Your task to perform on an android device: turn off notifications in google photos Image 0: 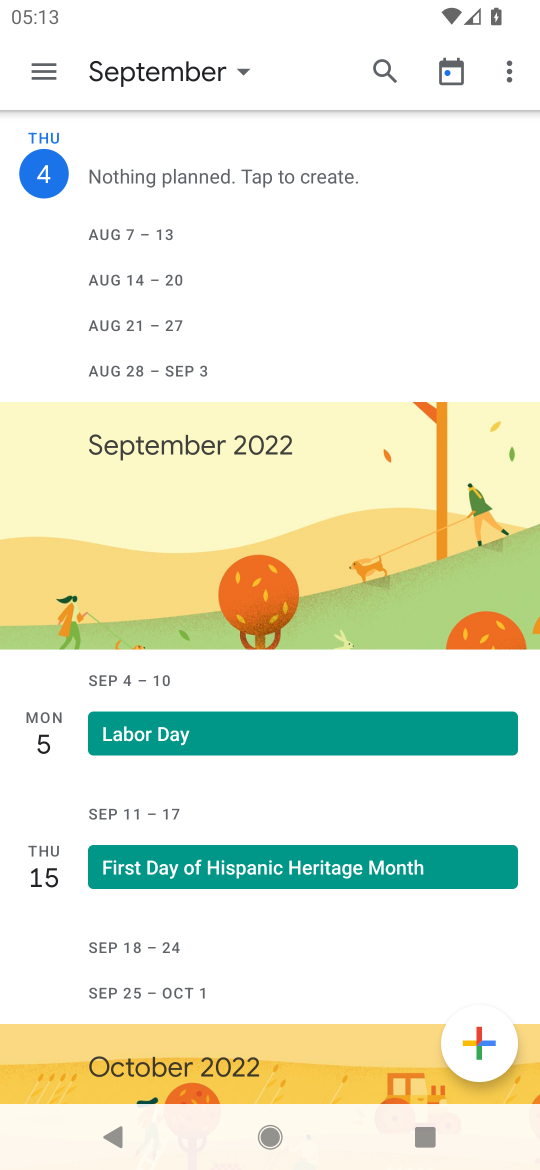
Step 0: press home button
Your task to perform on an android device: turn off notifications in google photos Image 1: 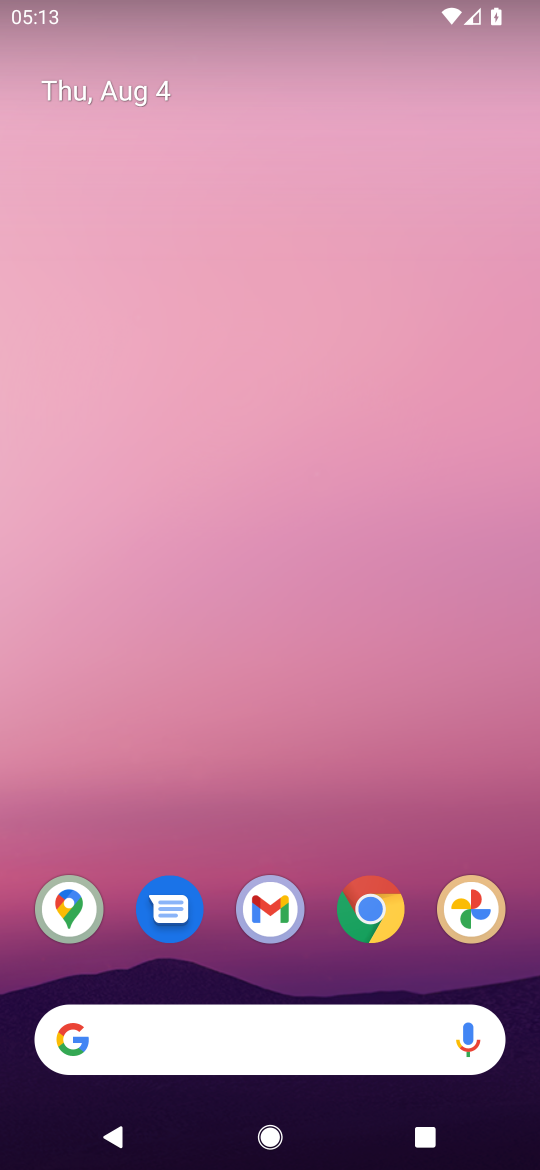
Step 1: drag from (284, 817) to (216, 49)
Your task to perform on an android device: turn off notifications in google photos Image 2: 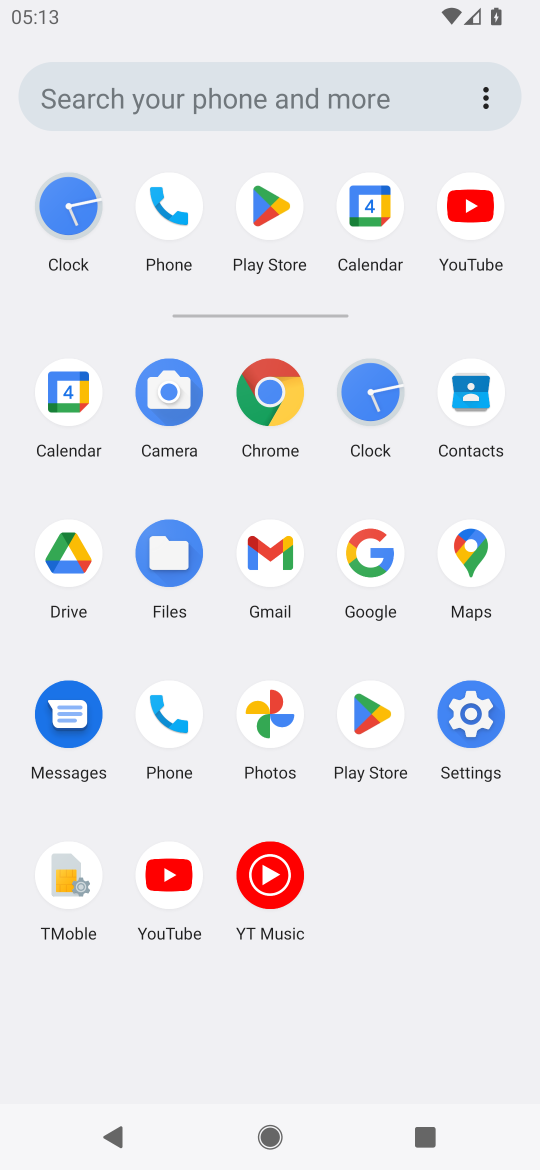
Step 2: click (270, 717)
Your task to perform on an android device: turn off notifications in google photos Image 3: 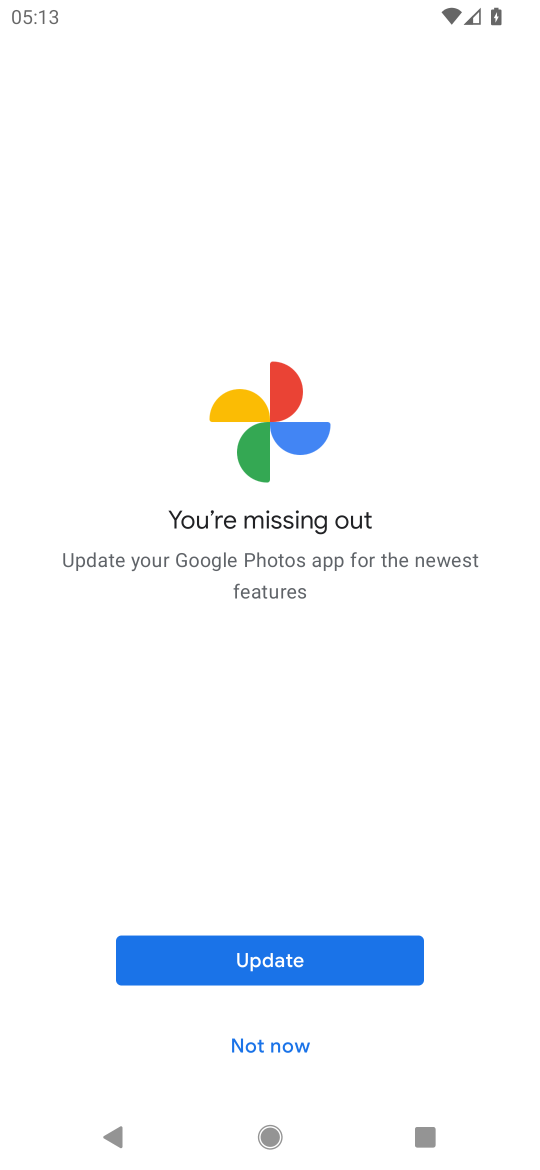
Step 3: click (271, 957)
Your task to perform on an android device: turn off notifications in google photos Image 4: 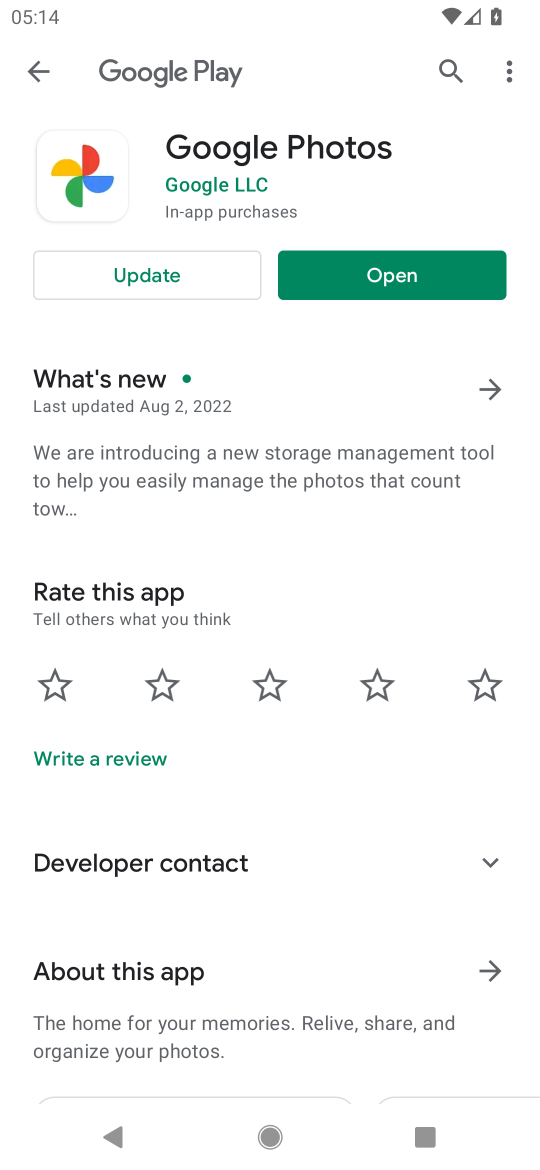
Step 4: click (130, 289)
Your task to perform on an android device: turn off notifications in google photos Image 5: 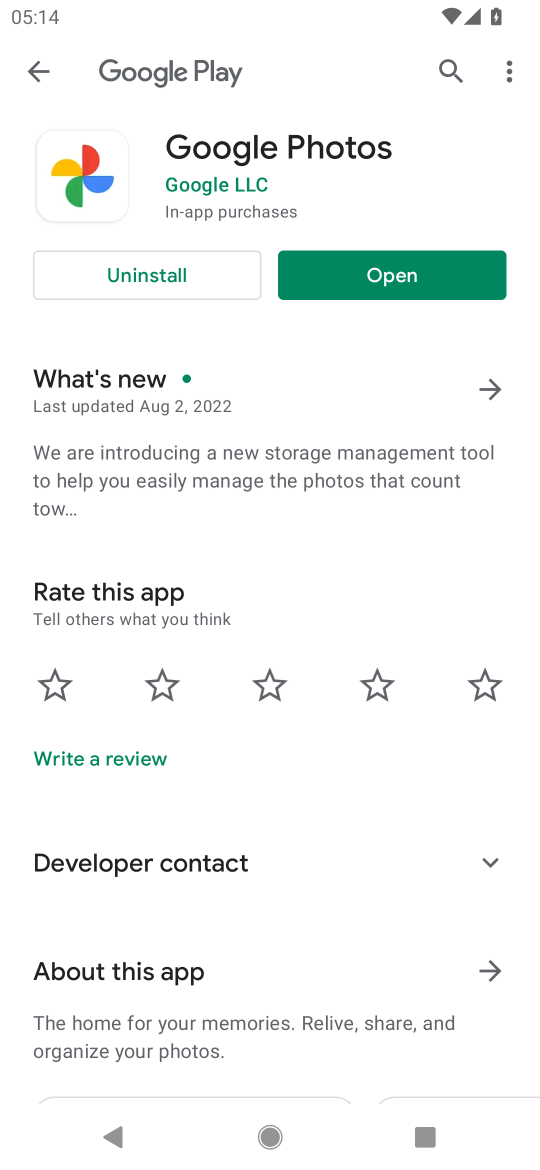
Step 5: click (405, 264)
Your task to perform on an android device: turn off notifications in google photos Image 6: 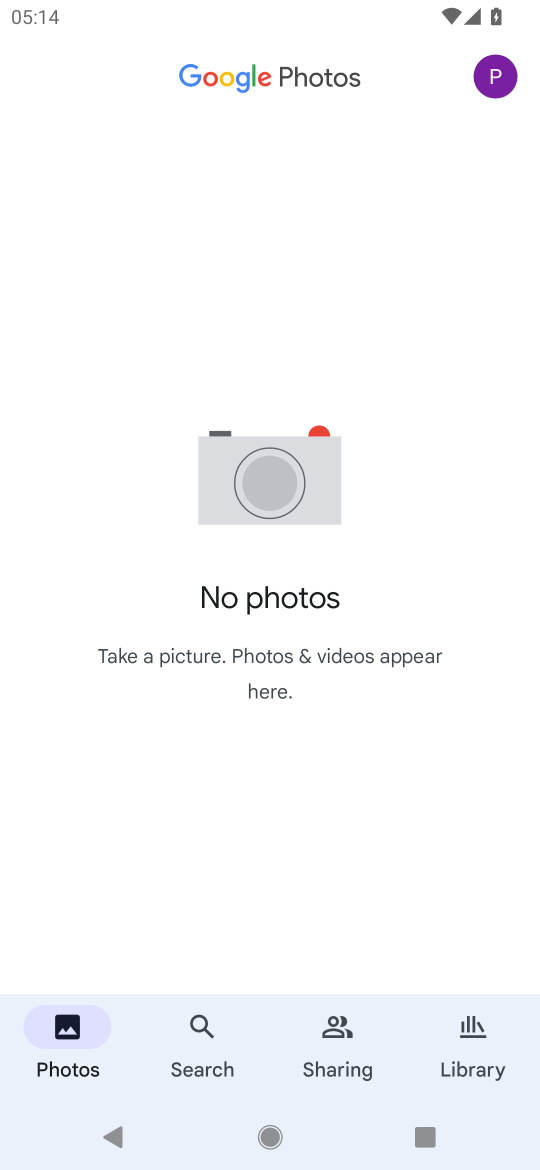
Step 6: click (500, 82)
Your task to perform on an android device: turn off notifications in google photos Image 7: 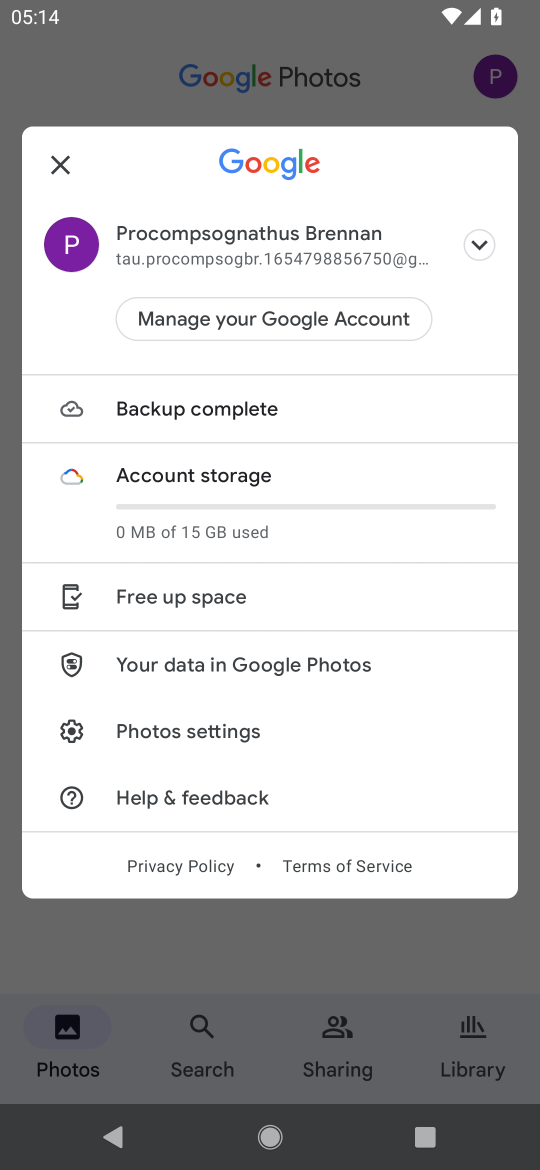
Step 7: click (189, 740)
Your task to perform on an android device: turn off notifications in google photos Image 8: 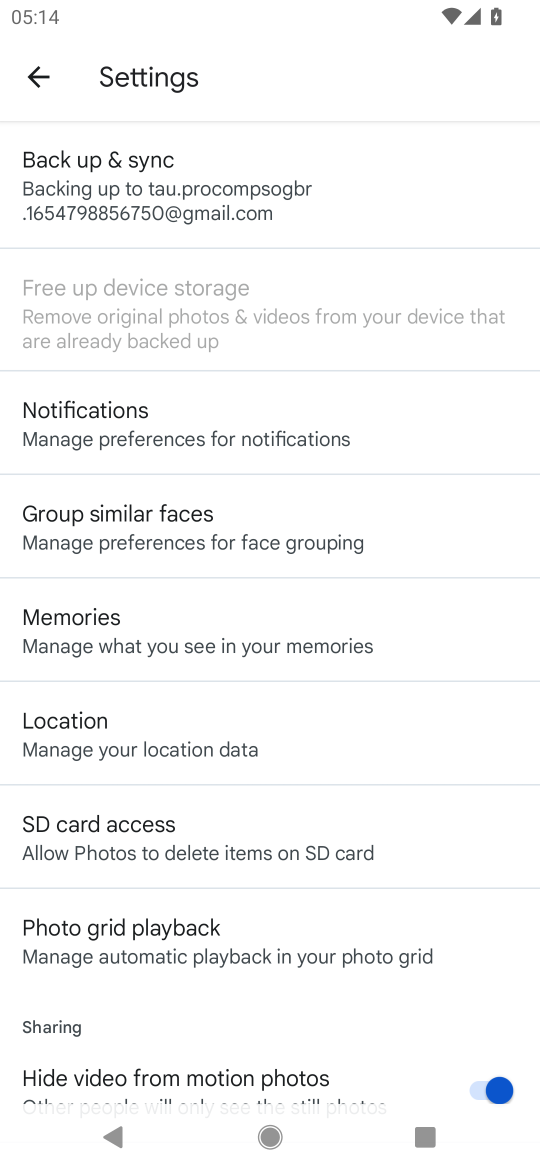
Step 8: click (111, 432)
Your task to perform on an android device: turn off notifications in google photos Image 9: 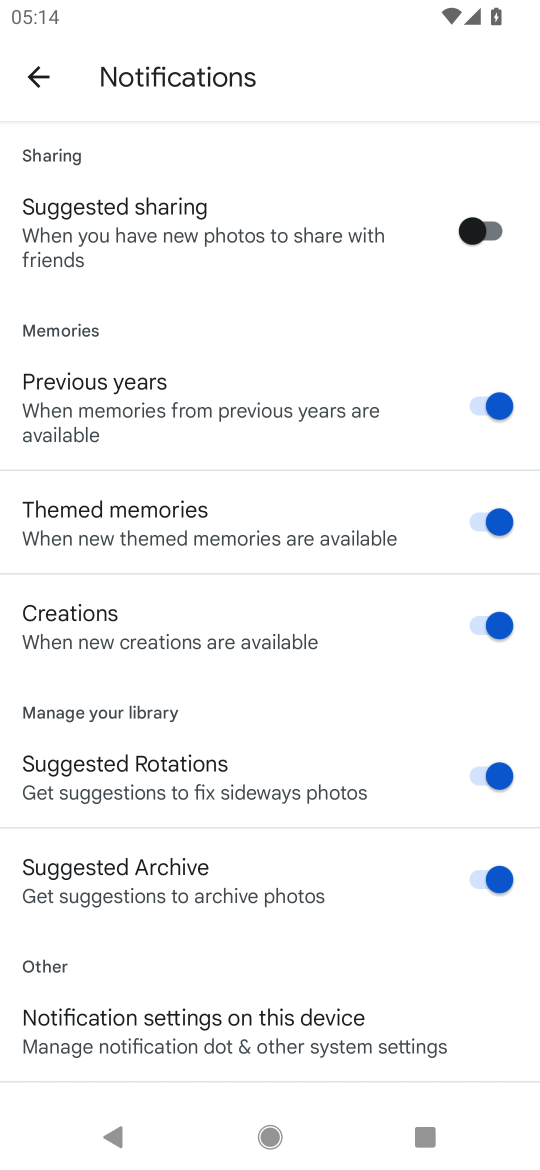
Step 9: drag from (236, 693) to (212, 298)
Your task to perform on an android device: turn off notifications in google photos Image 10: 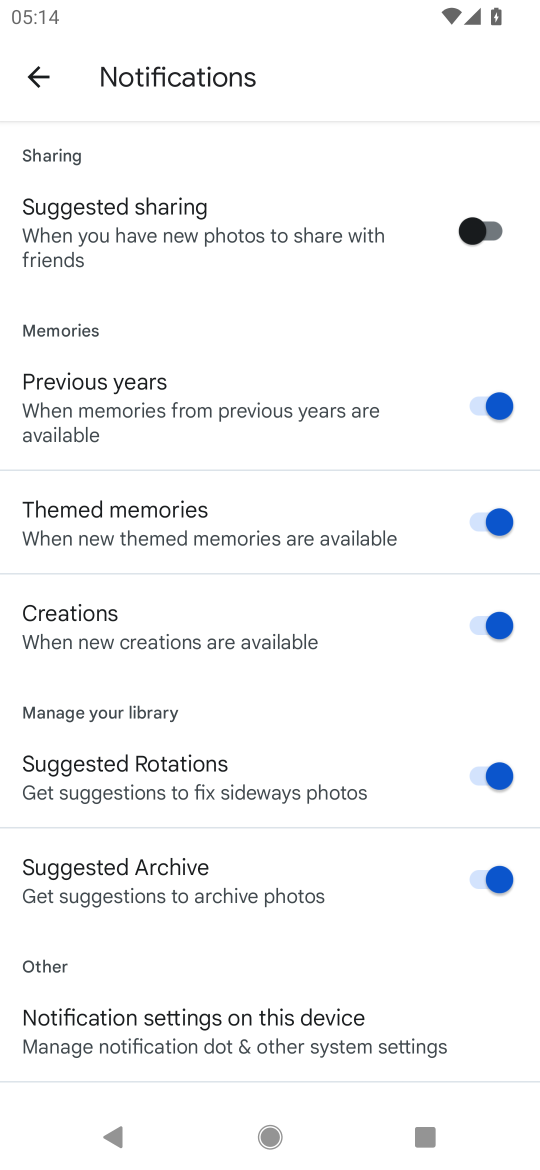
Step 10: drag from (159, 986) to (189, 374)
Your task to perform on an android device: turn off notifications in google photos Image 11: 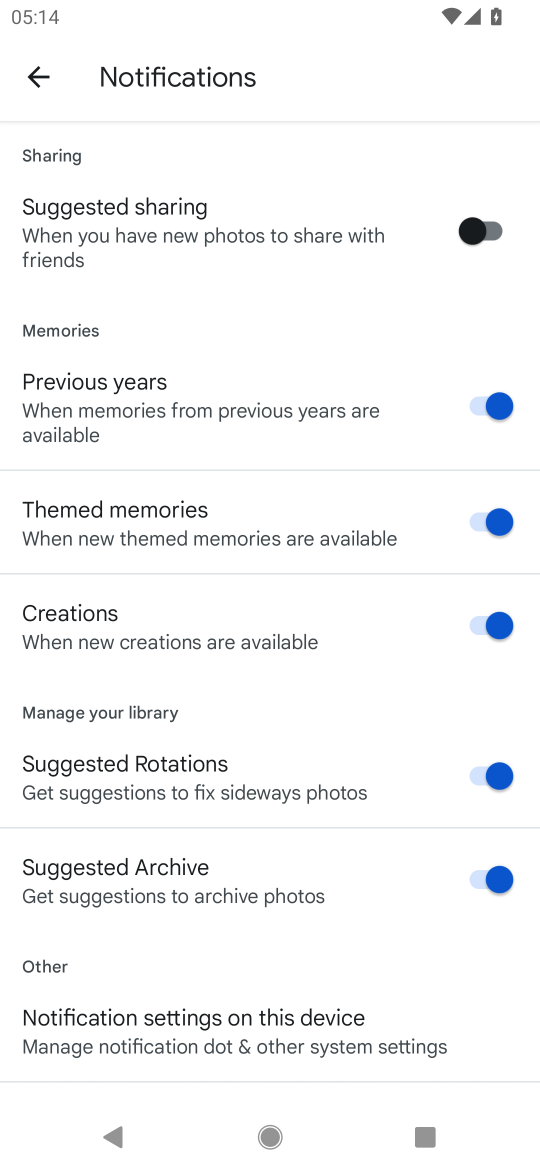
Step 11: click (118, 1036)
Your task to perform on an android device: turn off notifications in google photos Image 12: 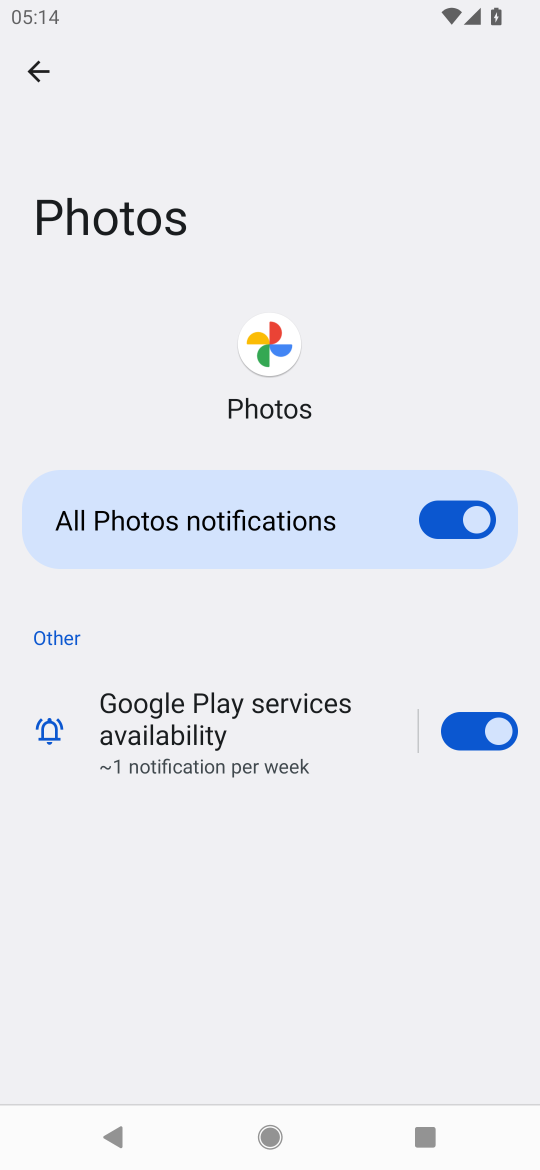
Step 12: click (446, 515)
Your task to perform on an android device: turn off notifications in google photos Image 13: 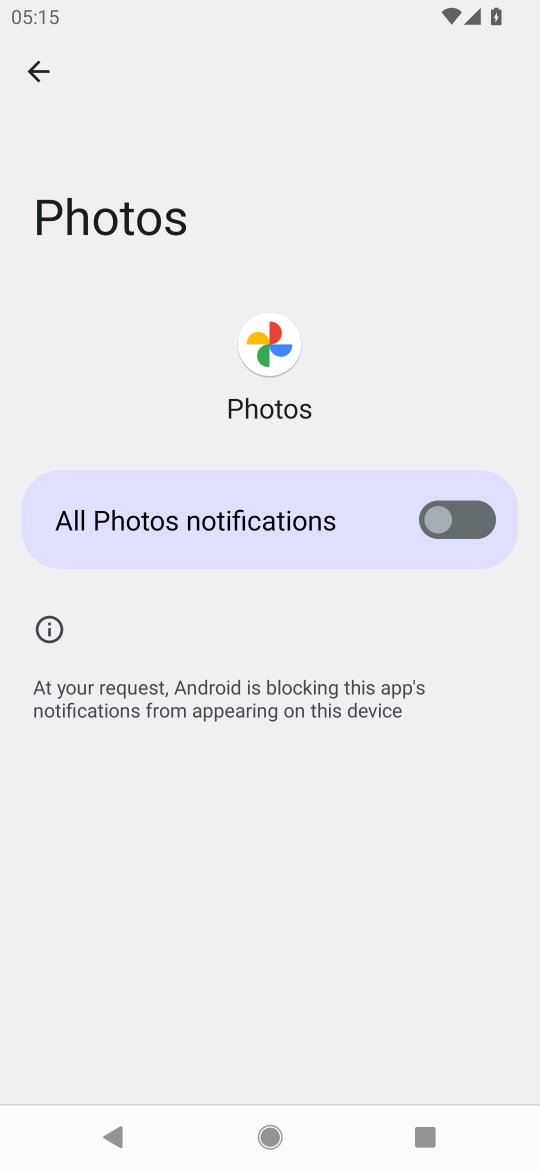
Step 13: task complete